Your task to perform on an android device: toggle priority inbox in the gmail app Image 0: 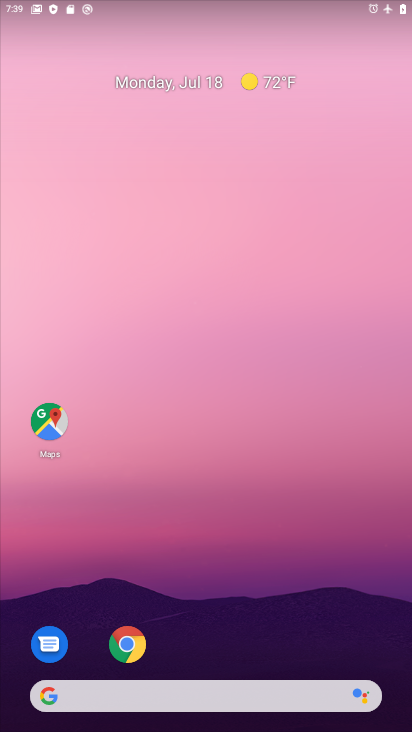
Step 0: drag from (377, 668) to (226, 53)
Your task to perform on an android device: toggle priority inbox in the gmail app Image 1: 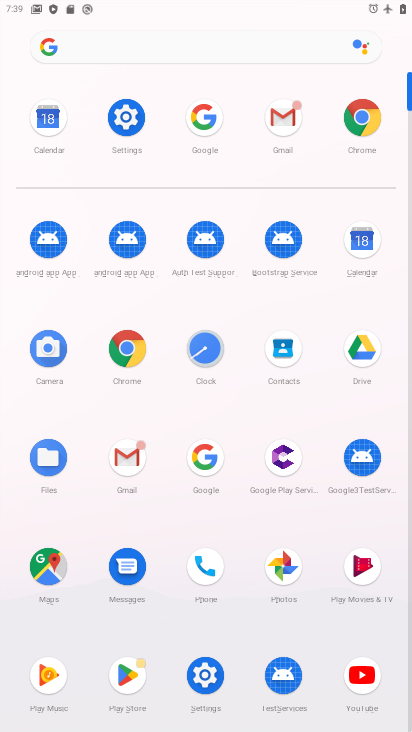
Step 1: click (128, 449)
Your task to perform on an android device: toggle priority inbox in the gmail app Image 2: 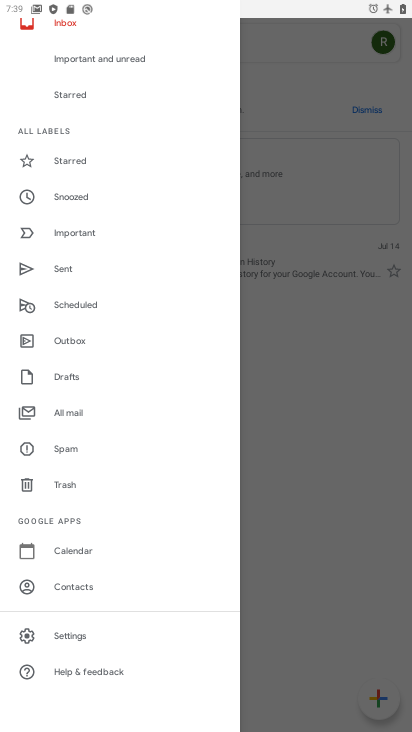
Step 2: press back button
Your task to perform on an android device: toggle priority inbox in the gmail app Image 3: 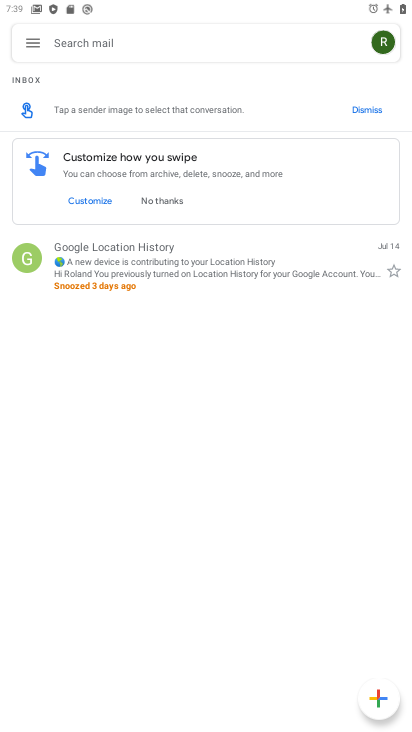
Step 3: click (20, 45)
Your task to perform on an android device: toggle priority inbox in the gmail app Image 4: 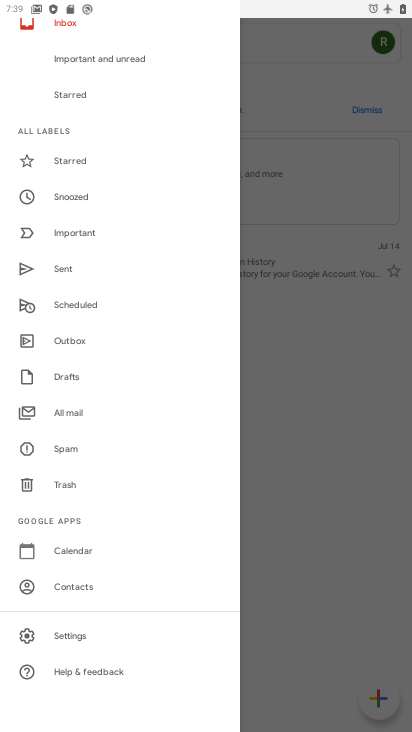
Step 4: click (55, 630)
Your task to perform on an android device: toggle priority inbox in the gmail app Image 5: 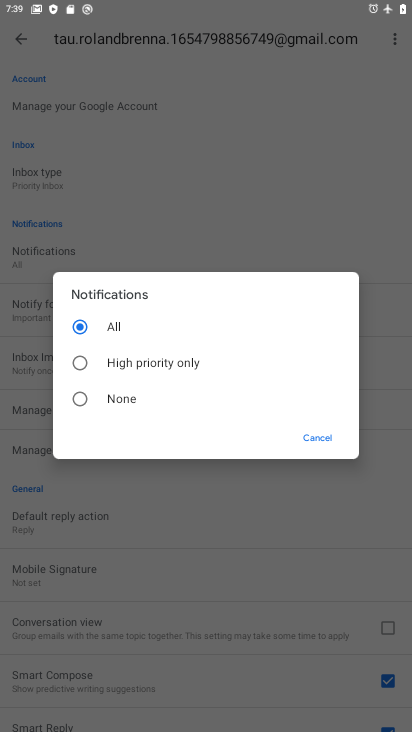
Step 5: click (309, 438)
Your task to perform on an android device: toggle priority inbox in the gmail app Image 6: 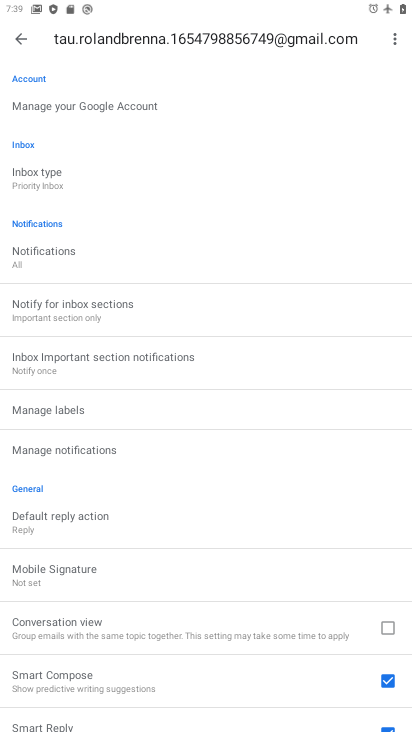
Step 6: click (61, 179)
Your task to perform on an android device: toggle priority inbox in the gmail app Image 7: 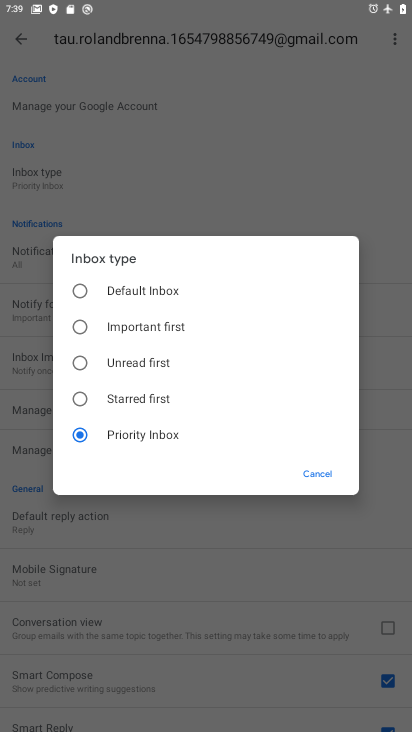
Step 7: click (103, 283)
Your task to perform on an android device: toggle priority inbox in the gmail app Image 8: 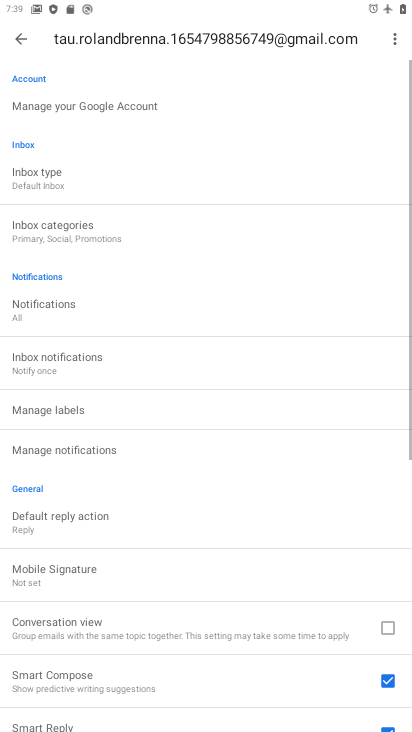
Step 8: task complete